Your task to perform on an android device: Open Yahoo.com Image 0: 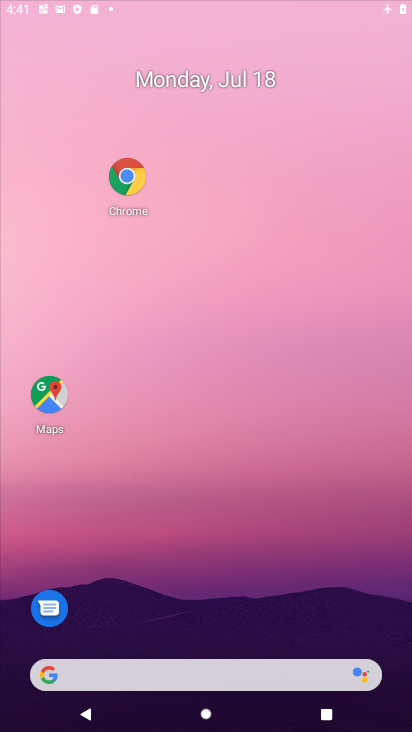
Step 0: drag from (204, 522) to (258, 155)
Your task to perform on an android device: Open Yahoo.com Image 1: 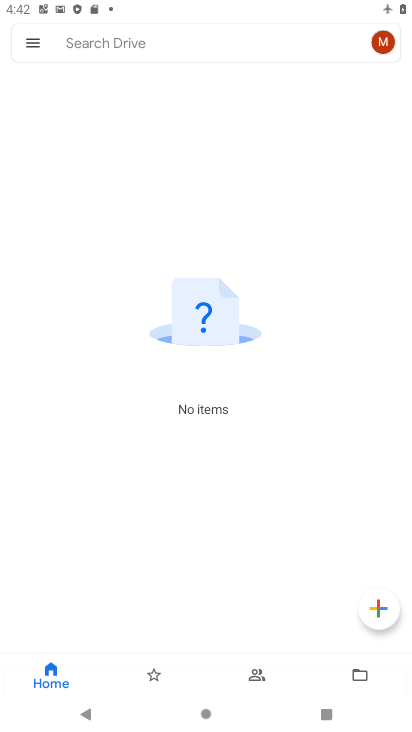
Step 1: press home button
Your task to perform on an android device: Open Yahoo.com Image 2: 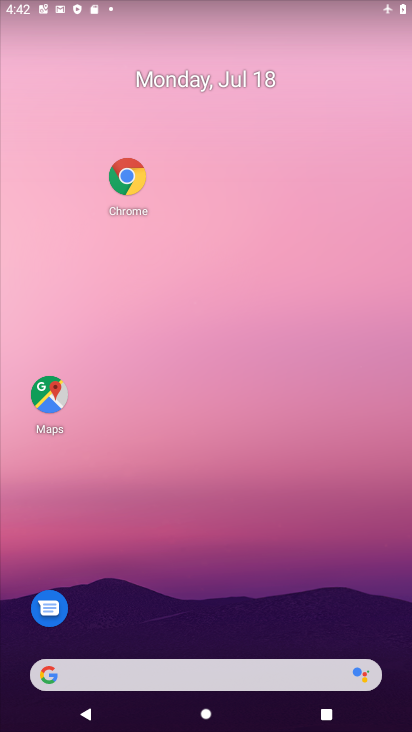
Step 2: drag from (250, 638) to (297, 227)
Your task to perform on an android device: Open Yahoo.com Image 3: 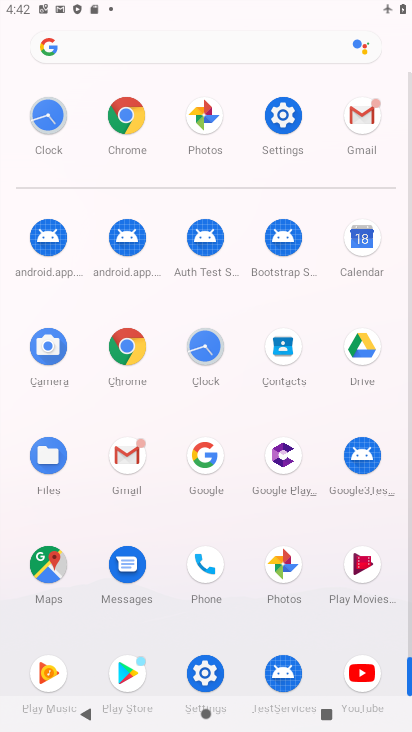
Step 3: click (99, 350)
Your task to perform on an android device: Open Yahoo.com Image 4: 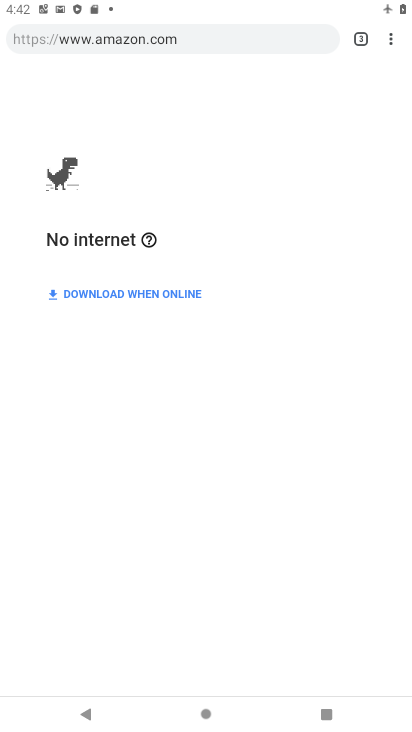
Step 4: click (324, 32)
Your task to perform on an android device: Open Yahoo.com Image 5: 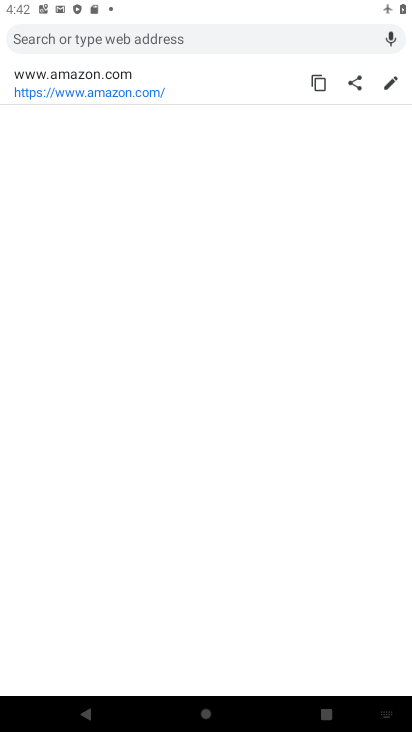
Step 5: type "yahoo"
Your task to perform on an android device: Open Yahoo.com Image 6: 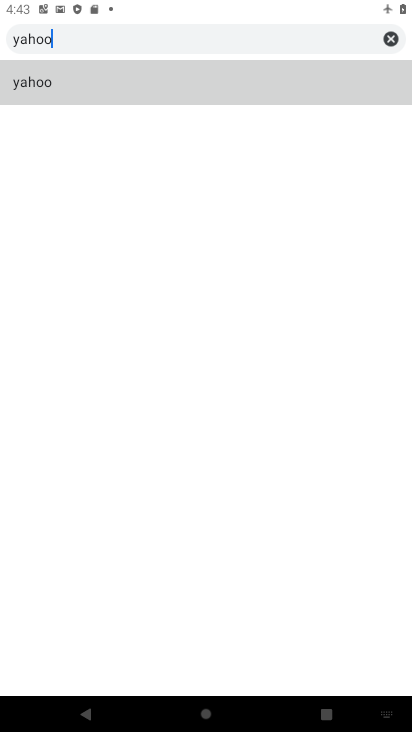
Step 6: task complete